Your task to perform on an android device: turn off location history Image 0: 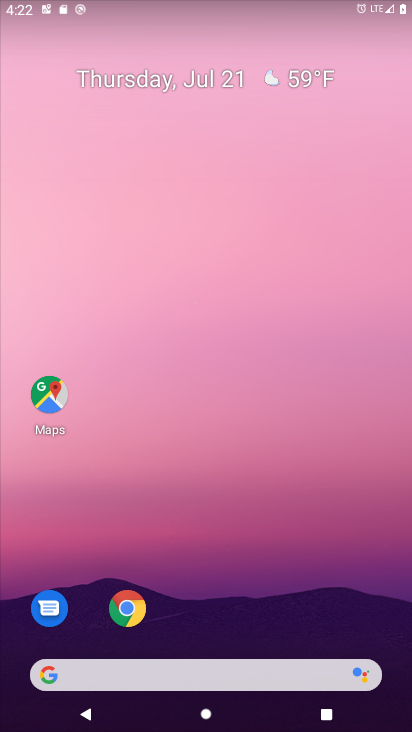
Step 0: drag from (280, 588) to (289, 273)
Your task to perform on an android device: turn off location history Image 1: 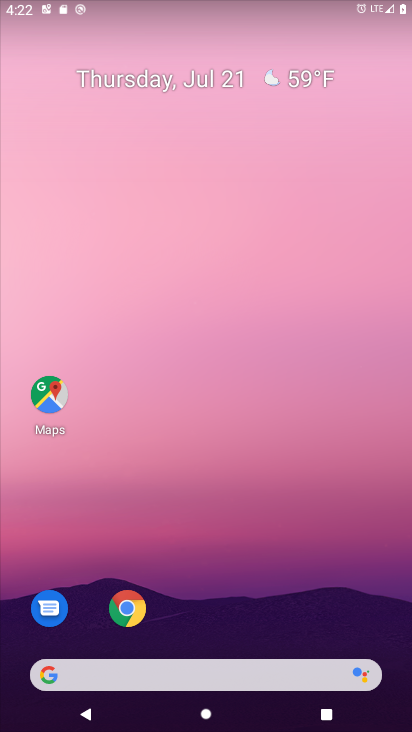
Step 1: drag from (286, 682) to (302, 145)
Your task to perform on an android device: turn off location history Image 2: 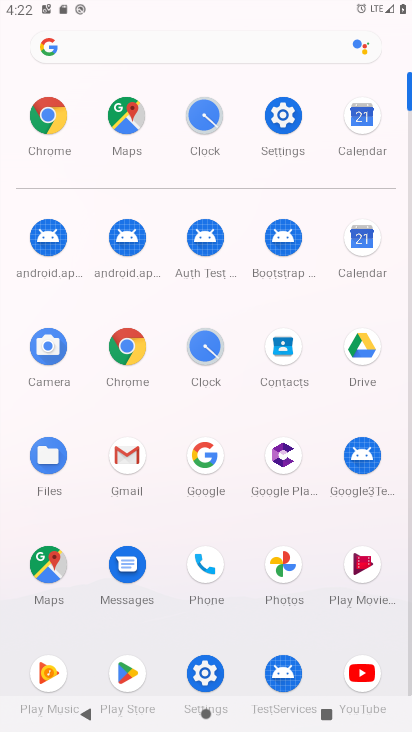
Step 2: click (274, 118)
Your task to perform on an android device: turn off location history Image 3: 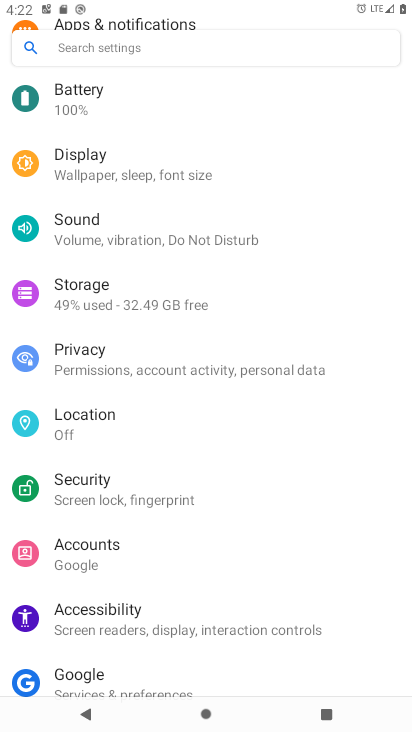
Step 3: click (143, 430)
Your task to perform on an android device: turn off location history Image 4: 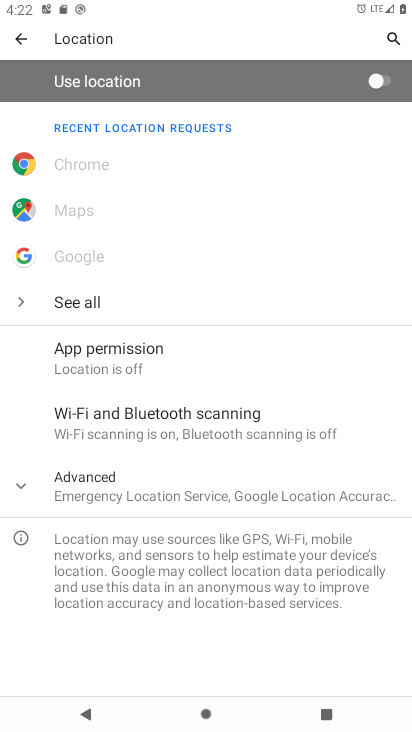
Step 4: click (229, 491)
Your task to perform on an android device: turn off location history Image 5: 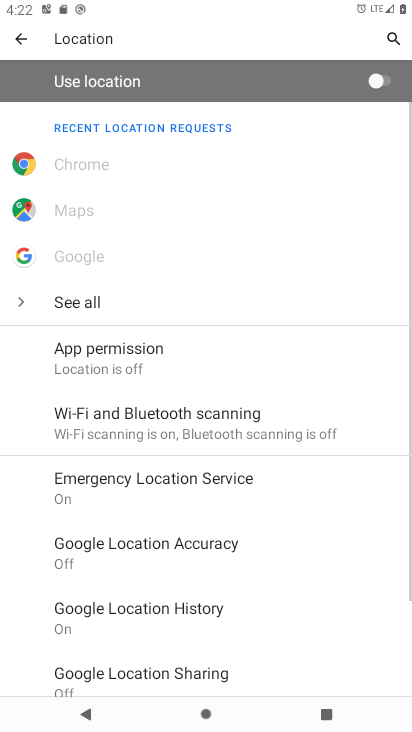
Step 5: click (203, 611)
Your task to perform on an android device: turn off location history Image 6: 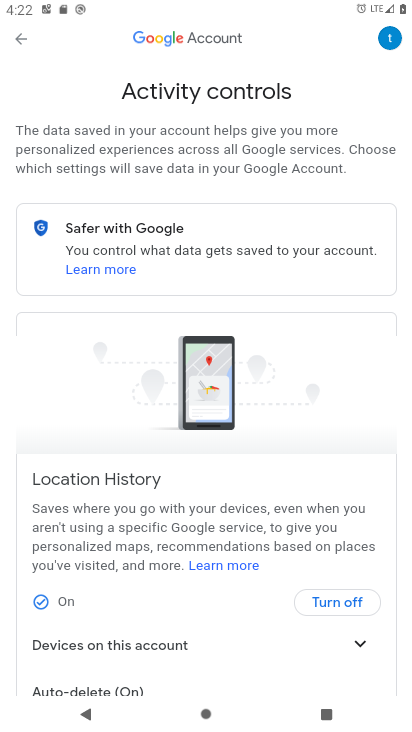
Step 6: click (344, 601)
Your task to perform on an android device: turn off location history Image 7: 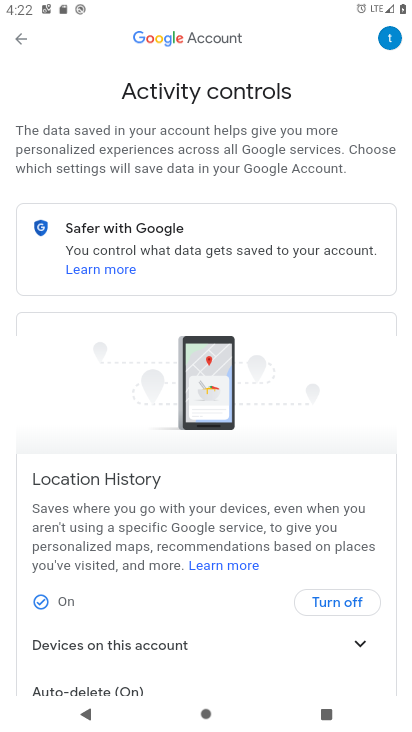
Step 7: click (344, 601)
Your task to perform on an android device: turn off location history Image 8: 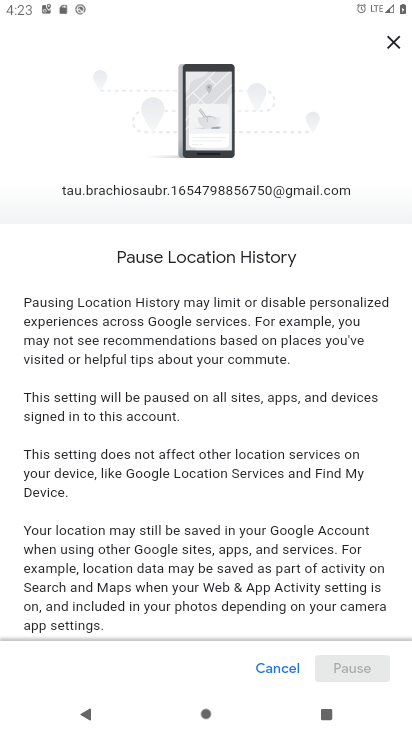
Step 8: drag from (294, 618) to (237, 16)
Your task to perform on an android device: turn off location history Image 9: 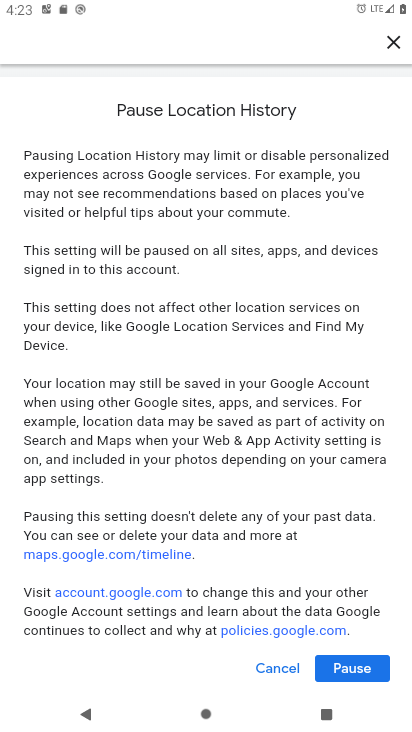
Step 9: click (359, 667)
Your task to perform on an android device: turn off location history Image 10: 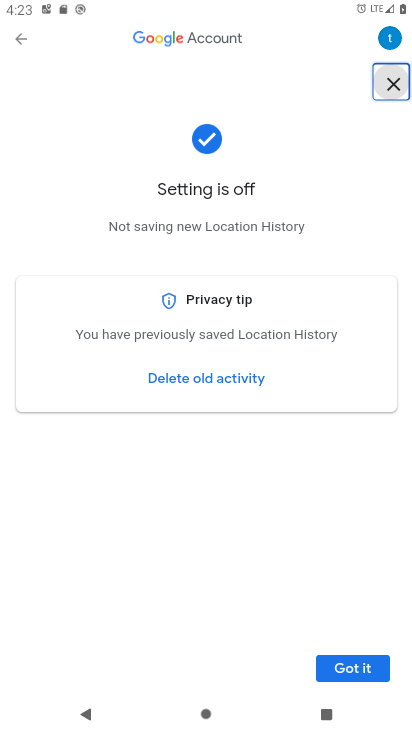
Step 10: task complete